Your task to perform on an android device: Open Maps and search for coffee Image 0: 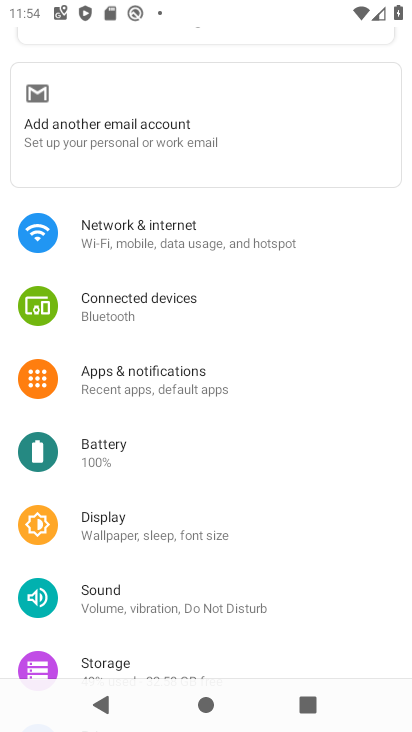
Step 0: press home button
Your task to perform on an android device: Open Maps and search for coffee Image 1: 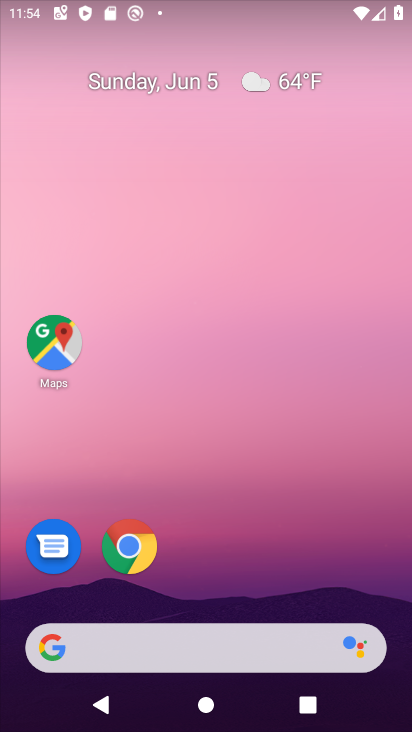
Step 1: click (55, 337)
Your task to perform on an android device: Open Maps and search for coffee Image 2: 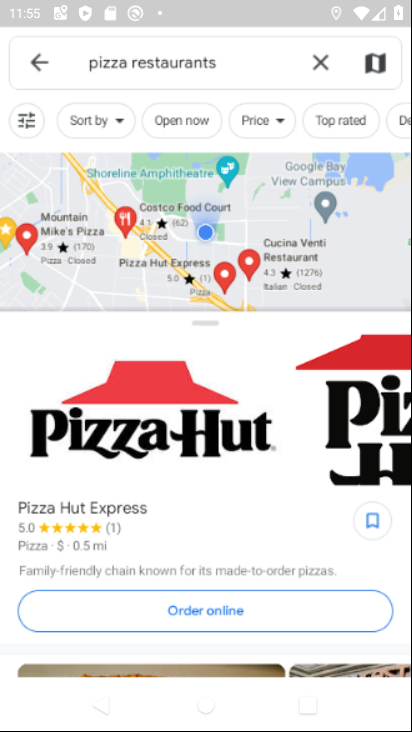
Step 2: click (326, 72)
Your task to perform on an android device: Open Maps and search for coffee Image 3: 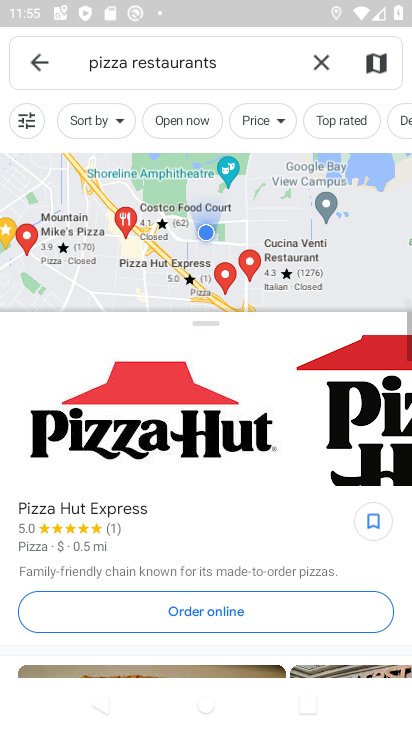
Step 3: click (318, 64)
Your task to perform on an android device: Open Maps and search for coffee Image 4: 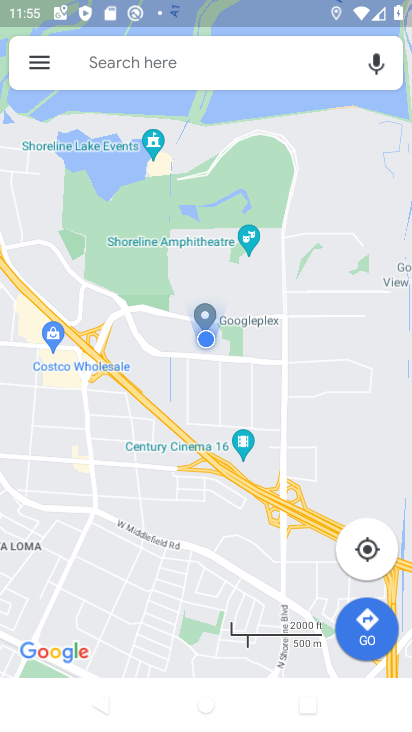
Step 4: click (197, 61)
Your task to perform on an android device: Open Maps and search for coffee Image 5: 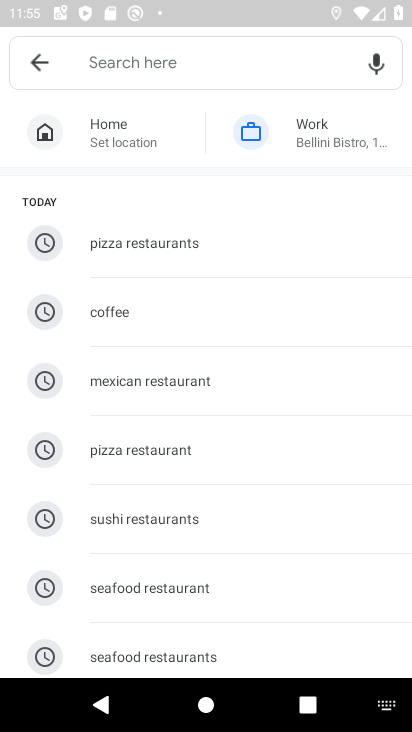
Step 5: click (181, 305)
Your task to perform on an android device: Open Maps and search for coffee Image 6: 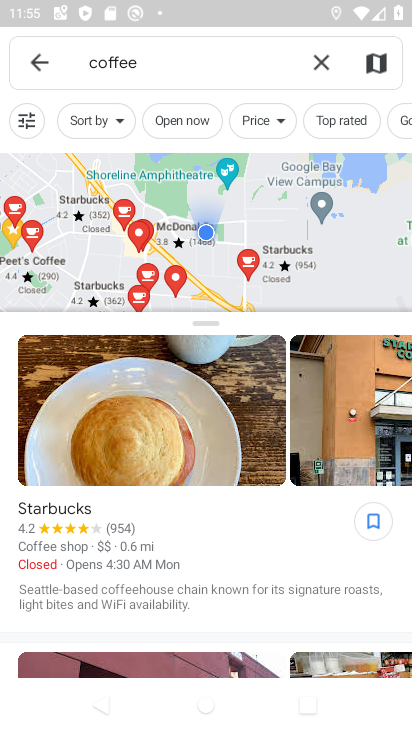
Step 6: task complete